Your task to perform on an android device: Open Youtube and go to the subscriptions tab Image 0: 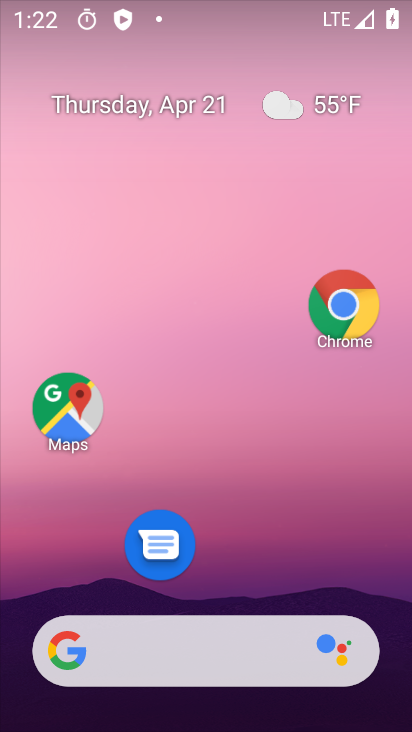
Step 0: drag from (188, 644) to (309, 176)
Your task to perform on an android device: Open Youtube and go to the subscriptions tab Image 1: 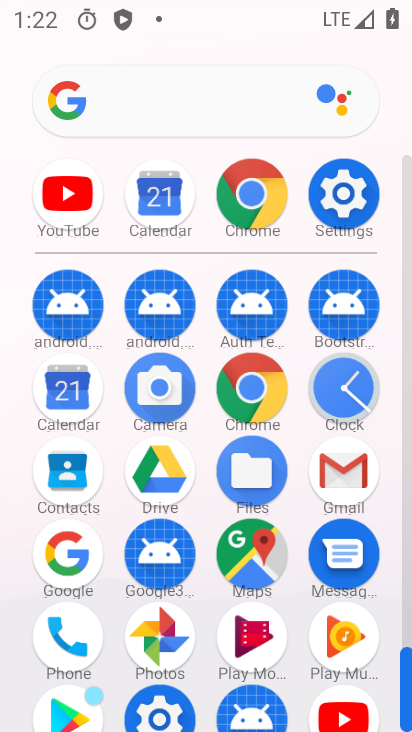
Step 1: drag from (219, 663) to (293, 360)
Your task to perform on an android device: Open Youtube and go to the subscriptions tab Image 2: 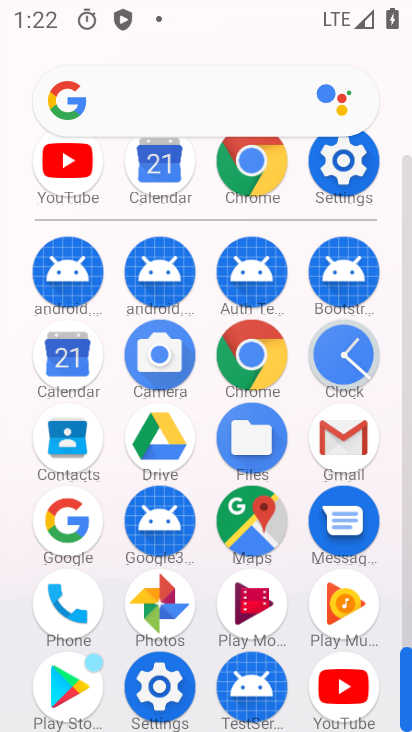
Step 2: click (339, 691)
Your task to perform on an android device: Open Youtube and go to the subscriptions tab Image 3: 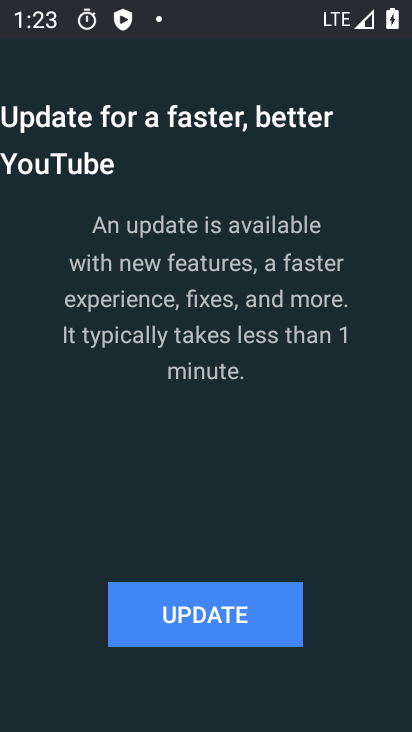
Step 3: click (250, 614)
Your task to perform on an android device: Open Youtube and go to the subscriptions tab Image 4: 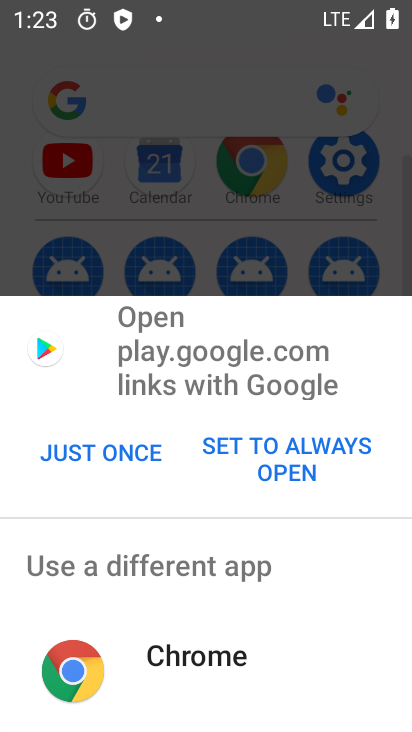
Step 4: click (127, 446)
Your task to perform on an android device: Open Youtube and go to the subscriptions tab Image 5: 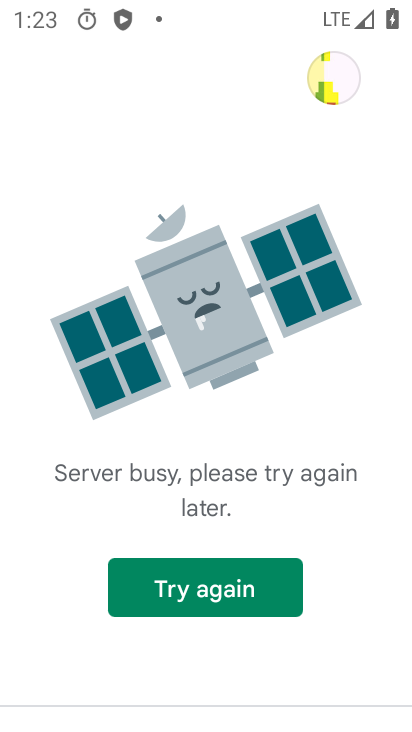
Step 5: task complete